Your task to perform on an android device: turn smart compose on in the gmail app Image 0: 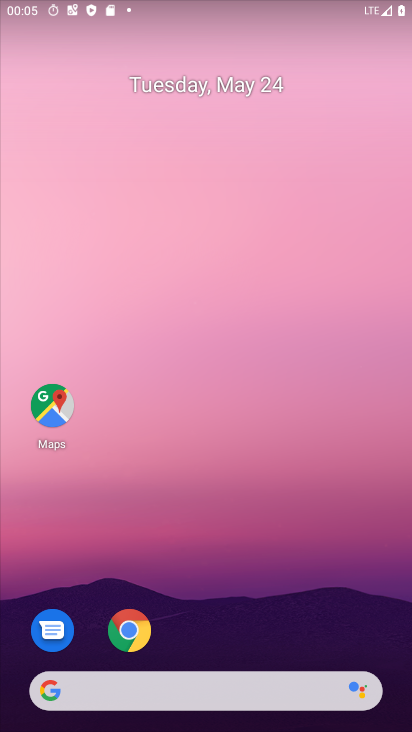
Step 0: drag from (252, 645) to (311, 3)
Your task to perform on an android device: turn smart compose on in the gmail app Image 1: 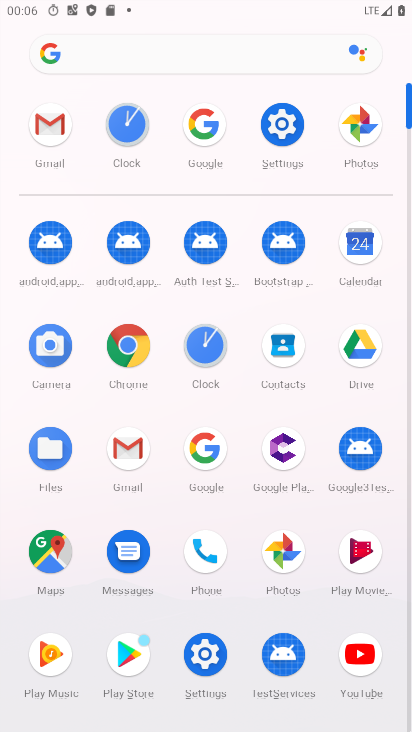
Step 1: click (48, 132)
Your task to perform on an android device: turn smart compose on in the gmail app Image 2: 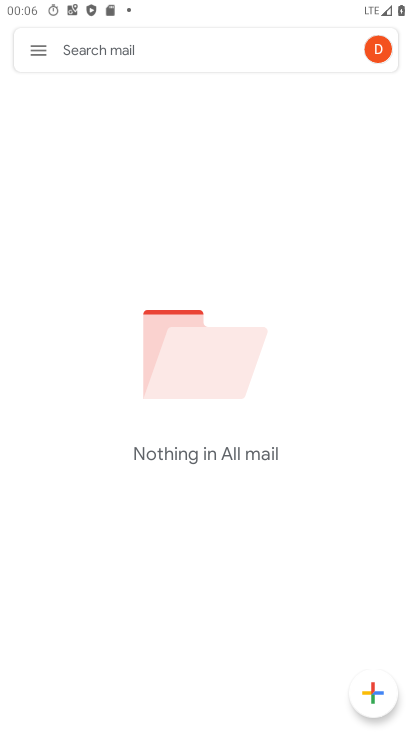
Step 2: click (33, 54)
Your task to perform on an android device: turn smart compose on in the gmail app Image 3: 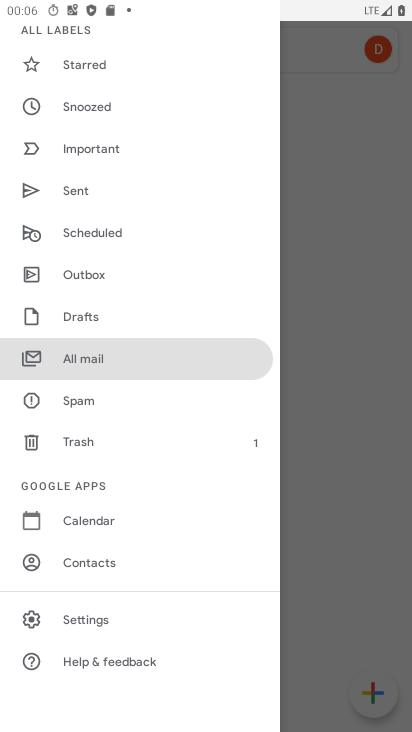
Step 3: click (101, 621)
Your task to perform on an android device: turn smart compose on in the gmail app Image 4: 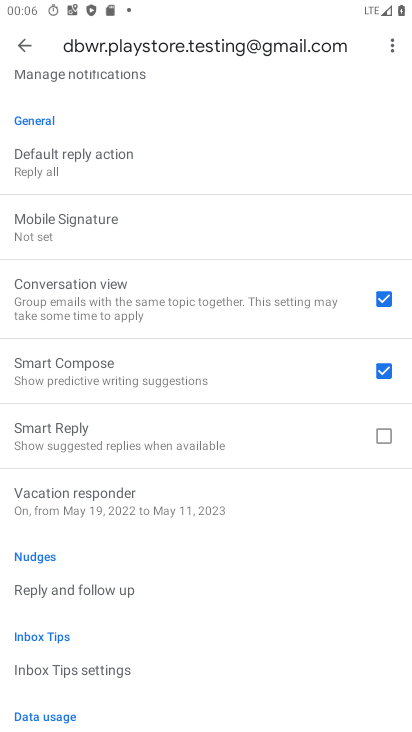
Step 4: task complete